Your task to perform on an android device: turn smart compose on in the gmail app Image 0: 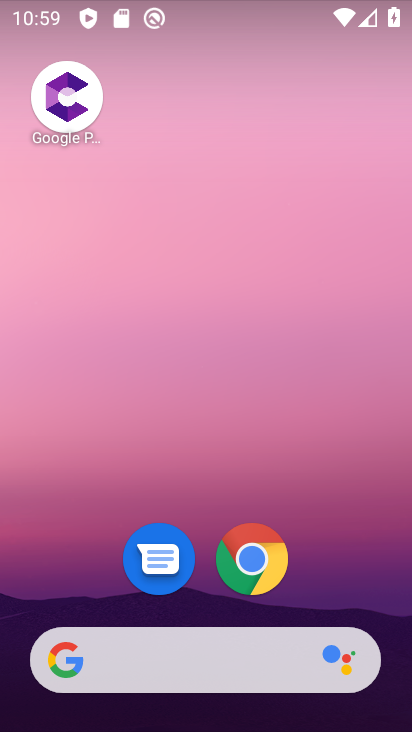
Step 0: drag from (47, 621) to (117, 322)
Your task to perform on an android device: turn smart compose on in the gmail app Image 1: 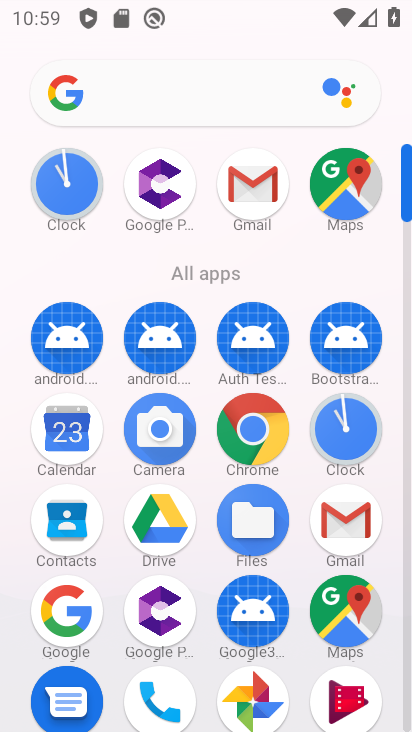
Step 1: click (319, 522)
Your task to perform on an android device: turn smart compose on in the gmail app Image 2: 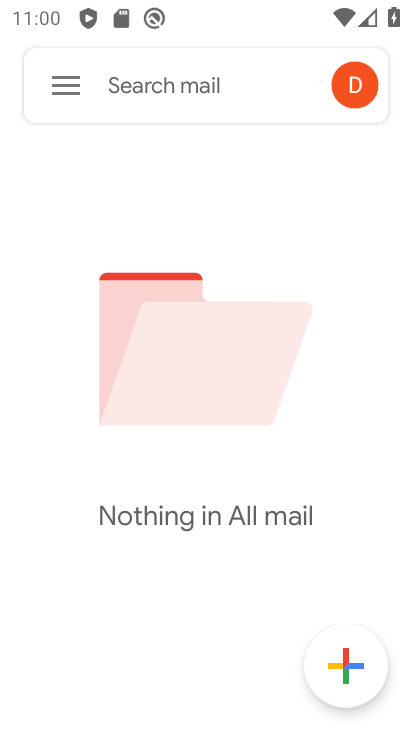
Step 2: click (75, 88)
Your task to perform on an android device: turn smart compose on in the gmail app Image 3: 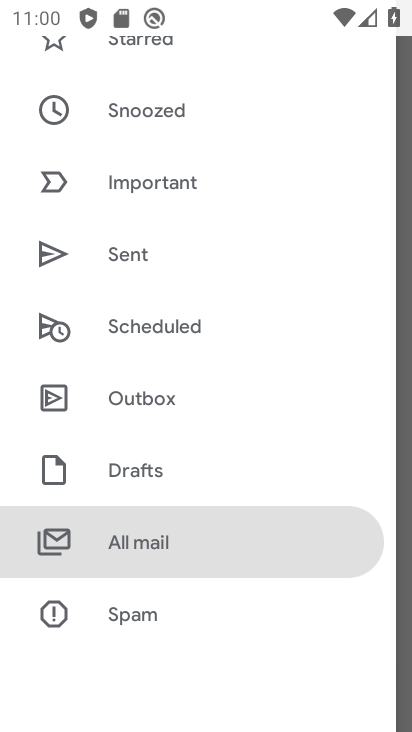
Step 3: drag from (159, 626) to (255, 109)
Your task to perform on an android device: turn smart compose on in the gmail app Image 4: 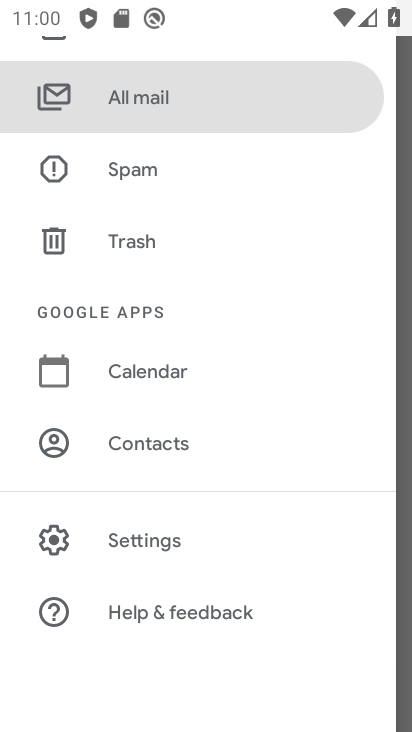
Step 4: click (199, 545)
Your task to perform on an android device: turn smart compose on in the gmail app Image 5: 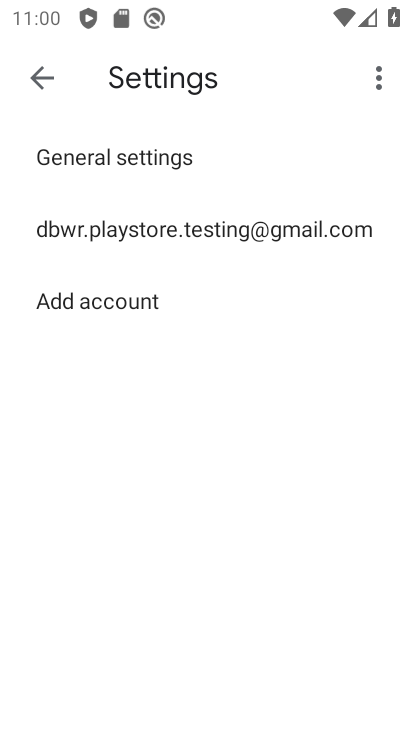
Step 5: click (218, 239)
Your task to perform on an android device: turn smart compose on in the gmail app Image 6: 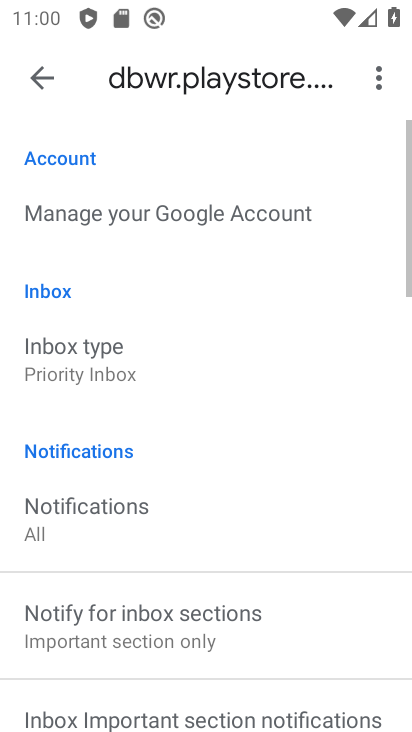
Step 6: task complete